Your task to perform on an android device: open wifi settings Image 0: 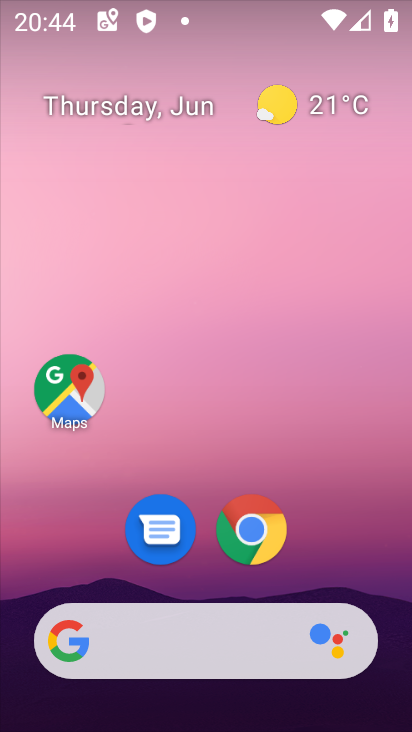
Step 0: drag from (326, 541) to (222, 166)
Your task to perform on an android device: open wifi settings Image 1: 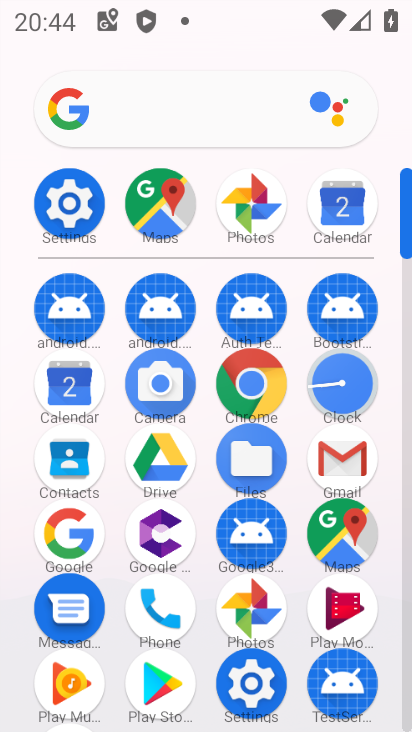
Step 1: click (67, 203)
Your task to perform on an android device: open wifi settings Image 2: 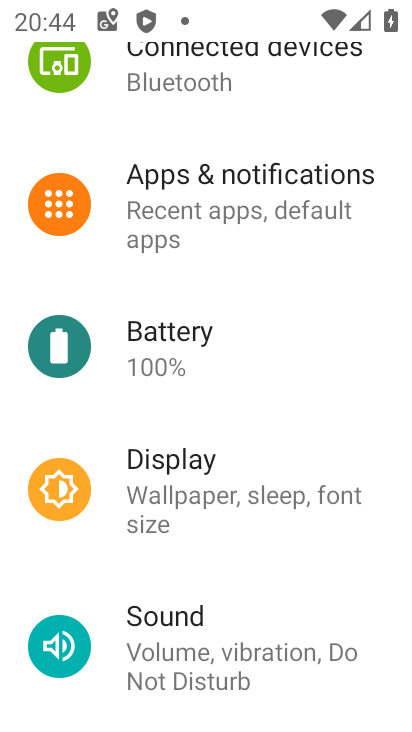
Step 2: drag from (250, 281) to (198, 721)
Your task to perform on an android device: open wifi settings Image 3: 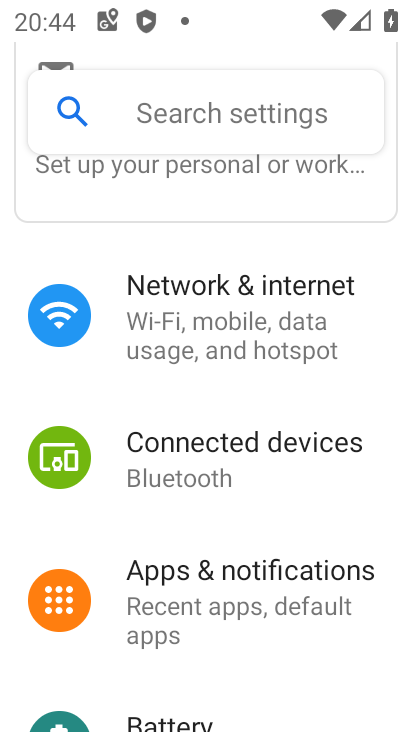
Step 3: click (223, 291)
Your task to perform on an android device: open wifi settings Image 4: 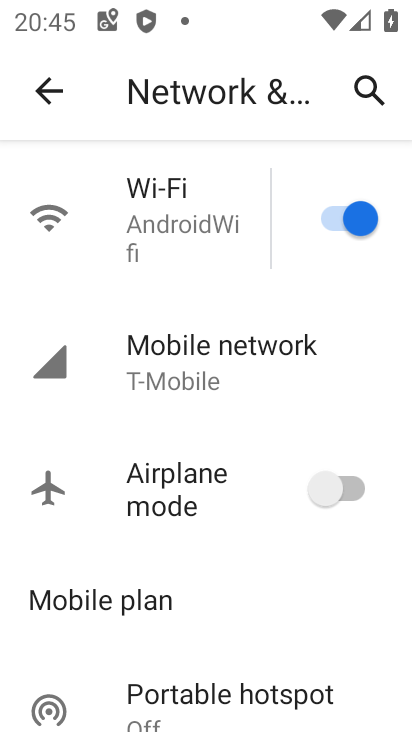
Step 4: click (141, 197)
Your task to perform on an android device: open wifi settings Image 5: 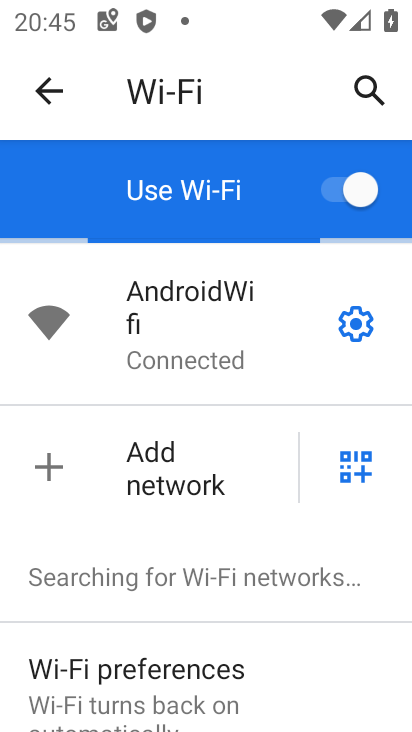
Step 5: task complete